Your task to perform on an android device: check the backup settings in the google photos Image 0: 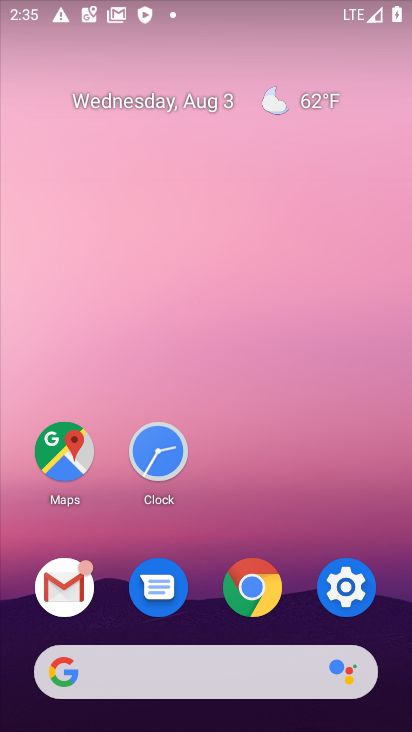
Step 0: drag from (291, 560) to (248, 114)
Your task to perform on an android device: check the backup settings in the google photos Image 1: 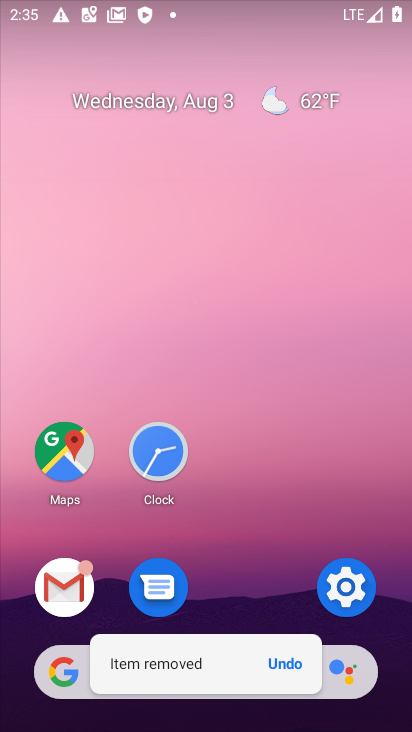
Step 1: drag from (234, 559) to (222, 38)
Your task to perform on an android device: check the backup settings in the google photos Image 2: 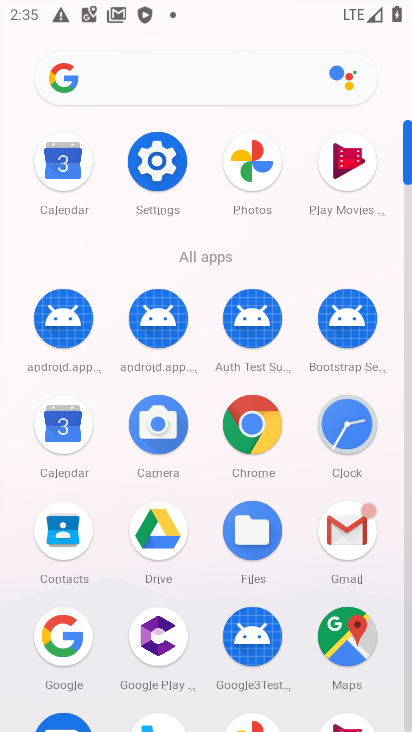
Step 2: click (256, 153)
Your task to perform on an android device: check the backup settings in the google photos Image 3: 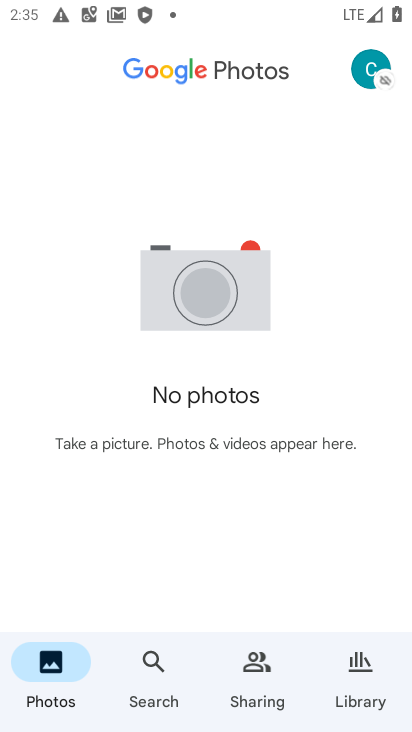
Step 3: click (362, 72)
Your task to perform on an android device: check the backup settings in the google photos Image 4: 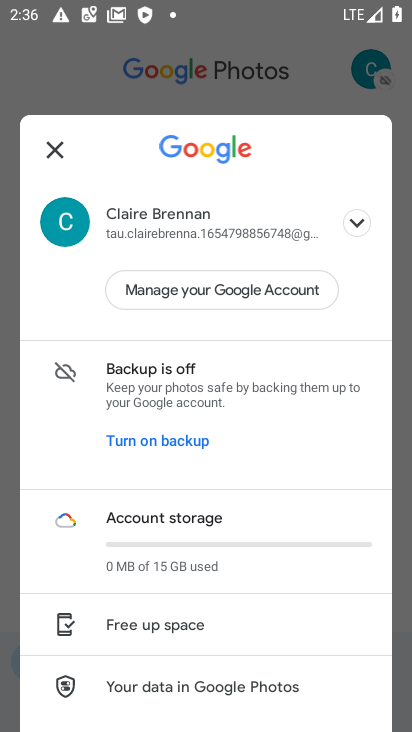
Step 4: click (157, 444)
Your task to perform on an android device: check the backup settings in the google photos Image 5: 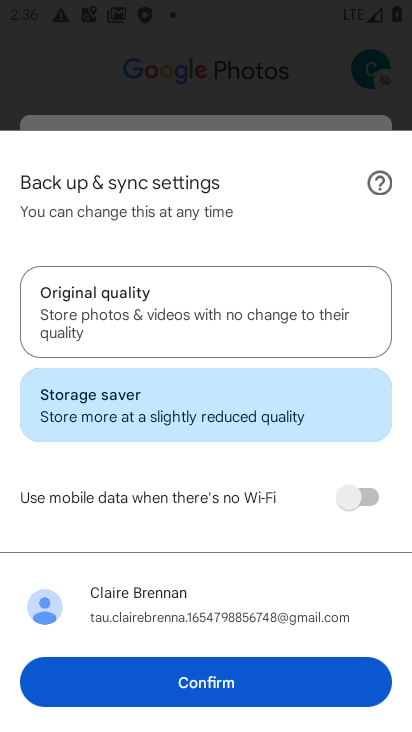
Step 5: click (191, 665)
Your task to perform on an android device: check the backup settings in the google photos Image 6: 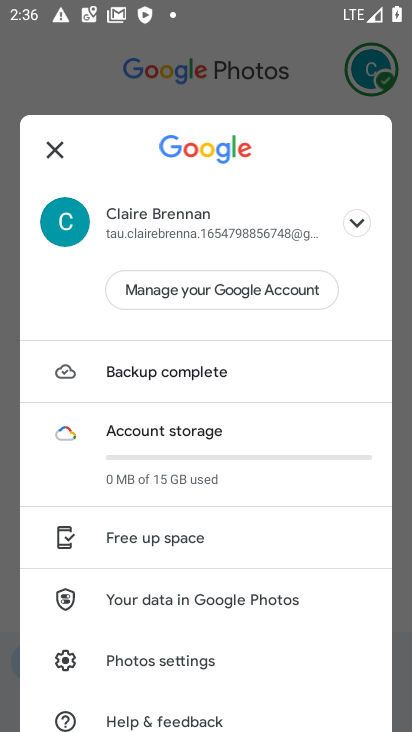
Step 6: click (138, 372)
Your task to perform on an android device: check the backup settings in the google photos Image 7: 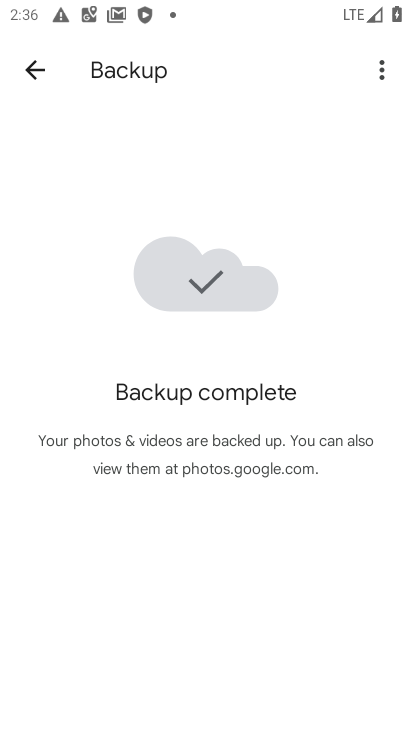
Step 7: task complete